Your task to perform on an android device: turn off smart reply in the gmail app Image 0: 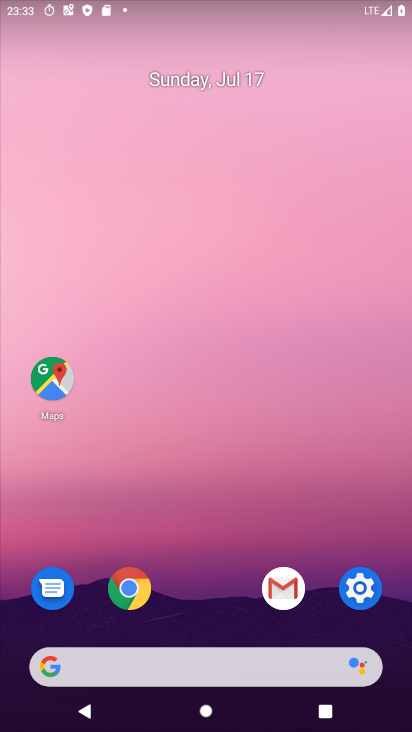
Step 0: press home button
Your task to perform on an android device: turn off smart reply in the gmail app Image 1: 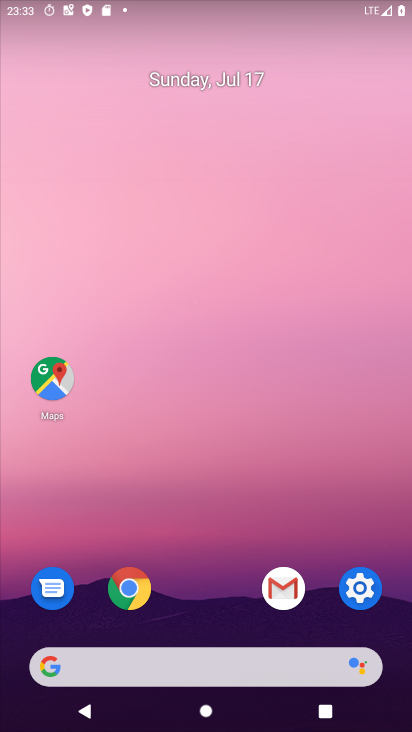
Step 1: click (283, 595)
Your task to perform on an android device: turn off smart reply in the gmail app Image 2: 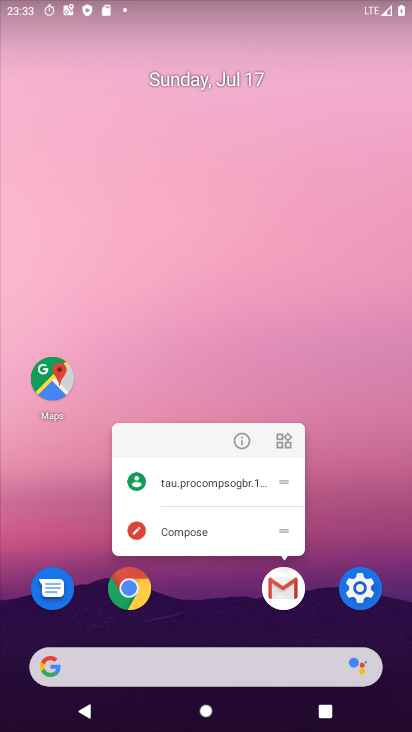
Step 2: click (300, 571)
Your task to perform on an android device: turn off smart reply in the gmail app Image 3: 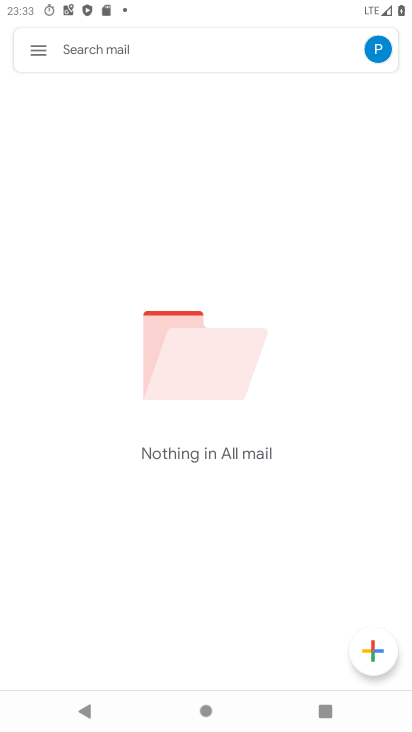
Step 3: click (51, 60)
Your task to perform on an android device: turn off smart reply in the gmail app Image 4: 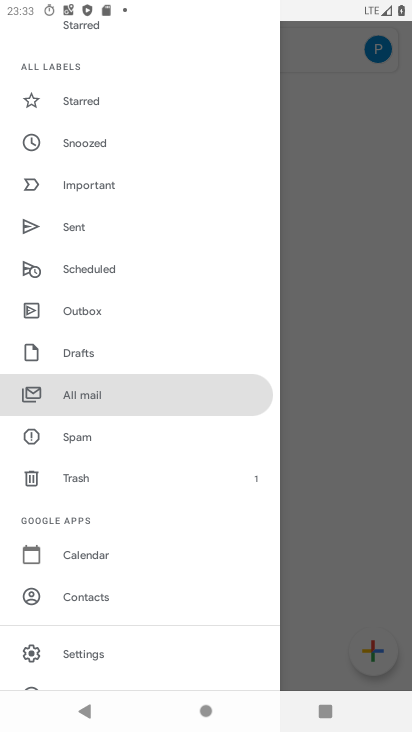
Step 4: click (86, 657)
Your task to perform on an android device: turn off smart reply in the gmail app Image 5: 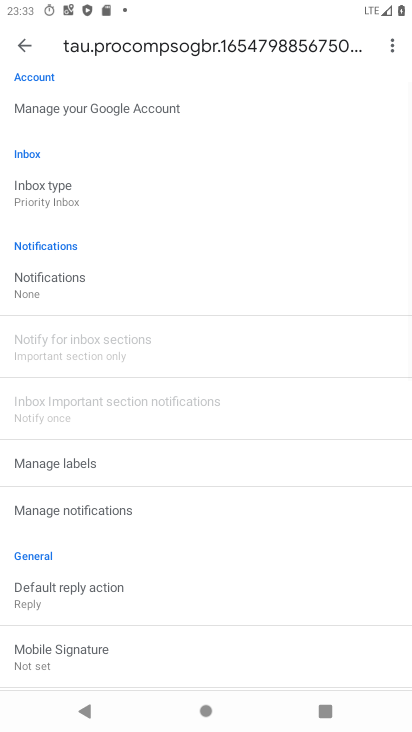
Step 5: drag from (259, 637) to (226, 90)
Your task to perform on an android device: turn off smart reply in the gmail app Image 6: 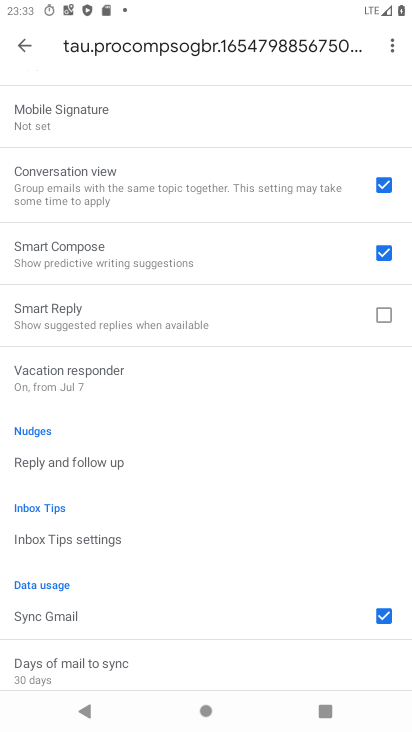
Step 6: click (379, 313)
Your task to perform on an android device: turn off smart reply in the gmail app Image 7: 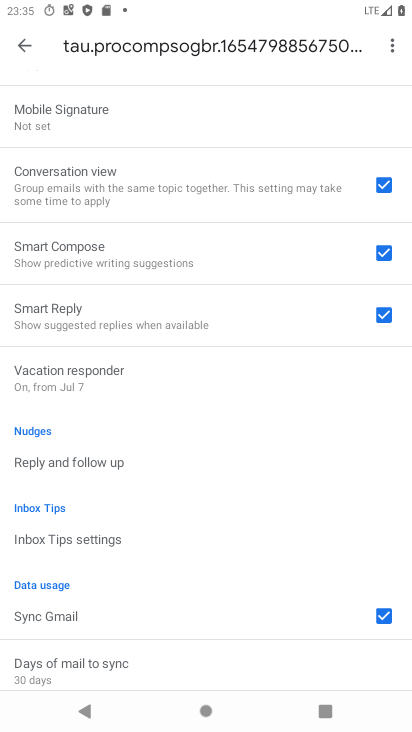
Step 7: task complete